Your task to perform on an android device: open a new tab in the chrome app Image 0: 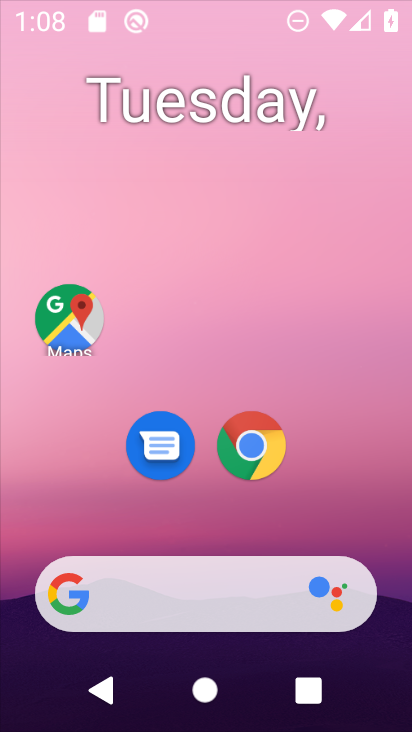
Step 0: click (298, 183)
Your task to perform on an android device: open a new tab in the chrome app Image 1: 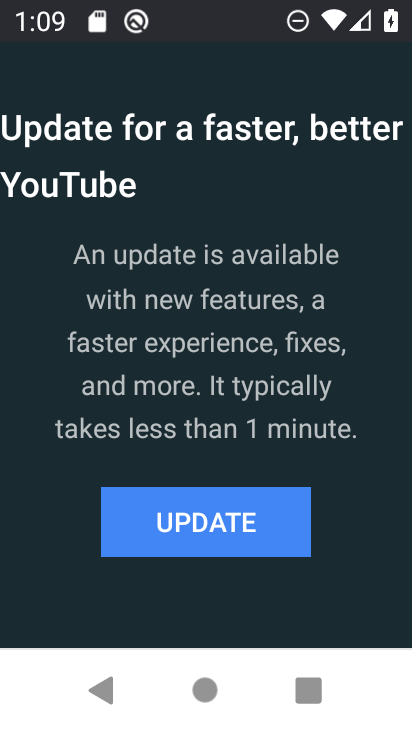
Step 1: click (245, 535)
Your task to perform on an android device: open a new tab in the chrome app Image 2: 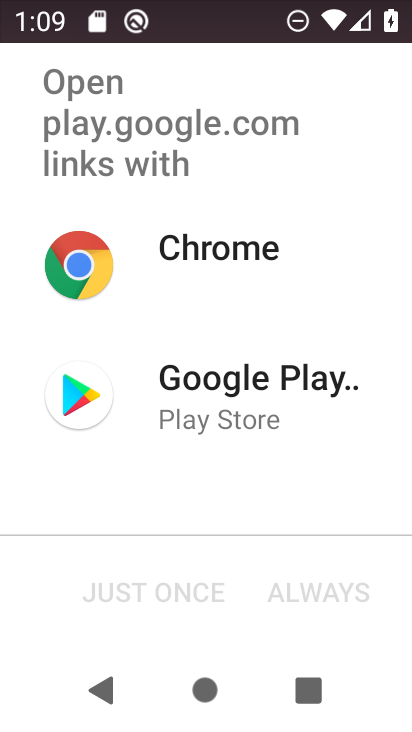
Step 2: click (195, 269)
Your task to perform on an android device: open a new tab in the chrome app Image 3: 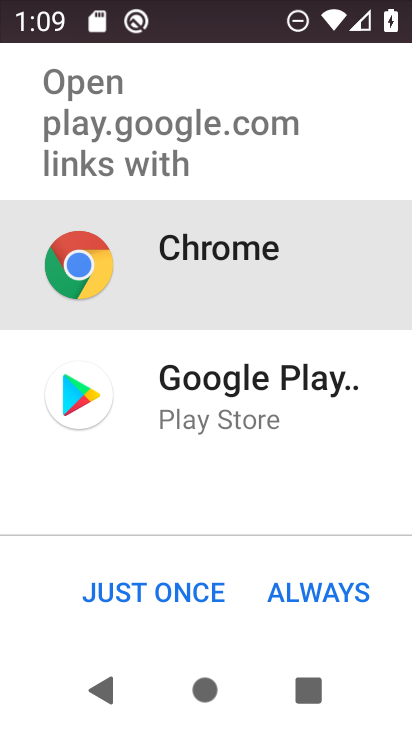
Step 3: click (184, 597)
Your task to perform on an android device: open a new tab in the chrome app Image 4: 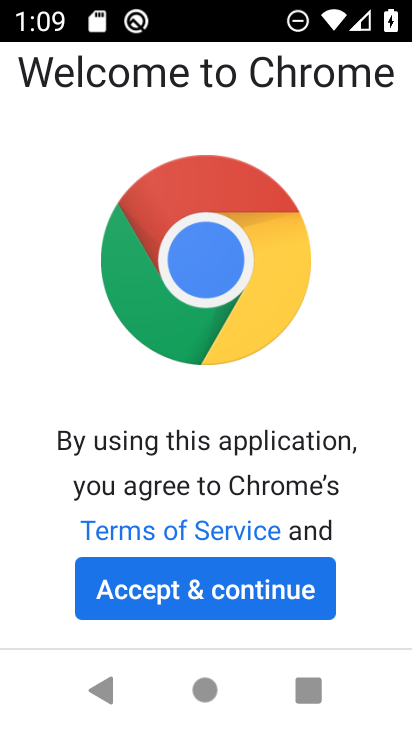
Step 4: click (291, 601)
Your task to perform on an android device: open a new tab in the chrome app Image 5: 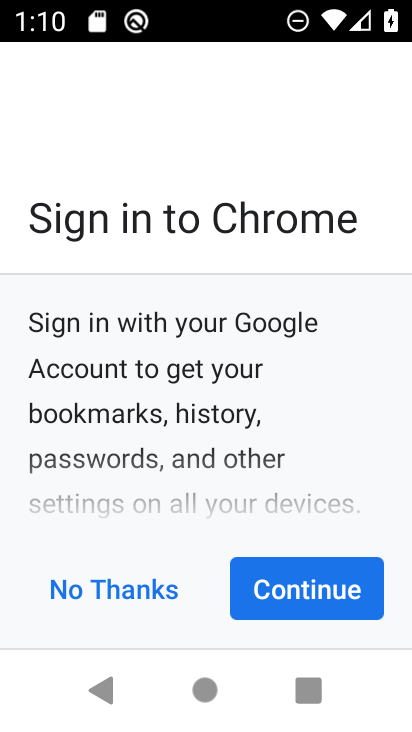
Step 5: click (293, 590)
Your task to perform on an android device: open a new tab in the chrome app Image 6: 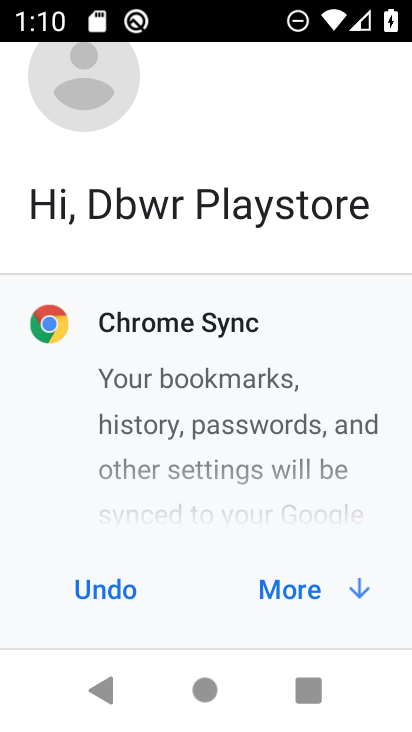
Step 6: click (291, 590)
Your task to perform on an android device: open a new tab in the chrome app Image 7: 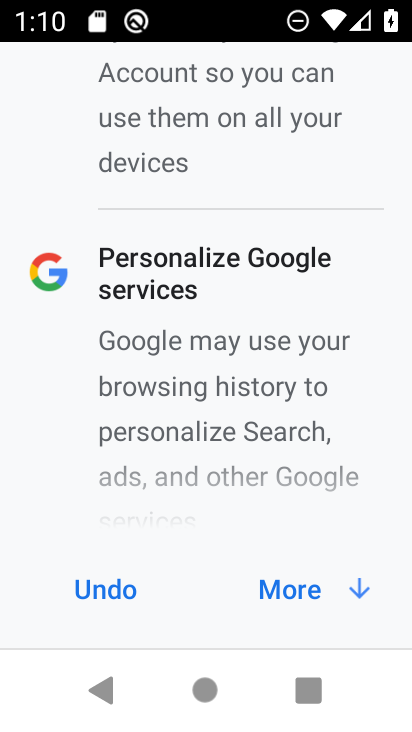
Step 7: click (290, 590)
Your task to perform on an android device: open a new tab in the chrome app Image 8: 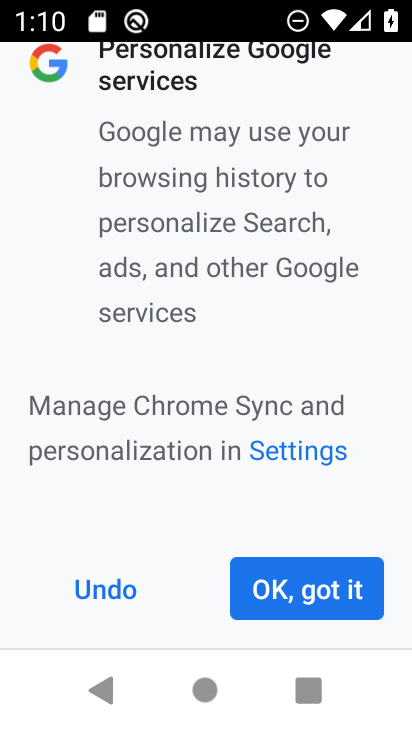
Step 8: click (290, 590)
Your task to perform on an android device: open a new tab in the chrome app Image 9: 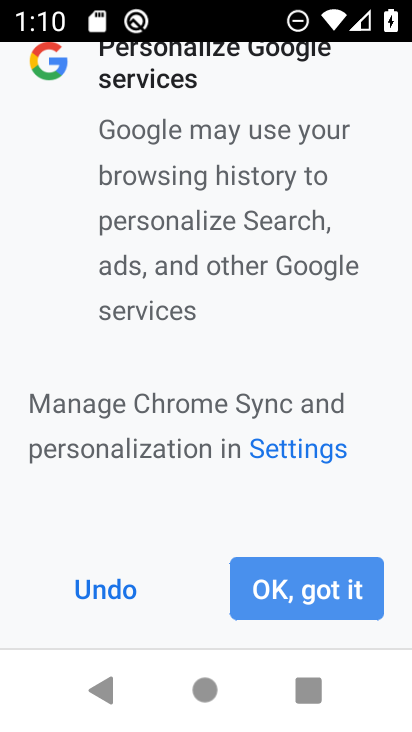
Step 9: click (290, 590)
Your task to perform on an android device: open a new tab in the chrome app Image 10: 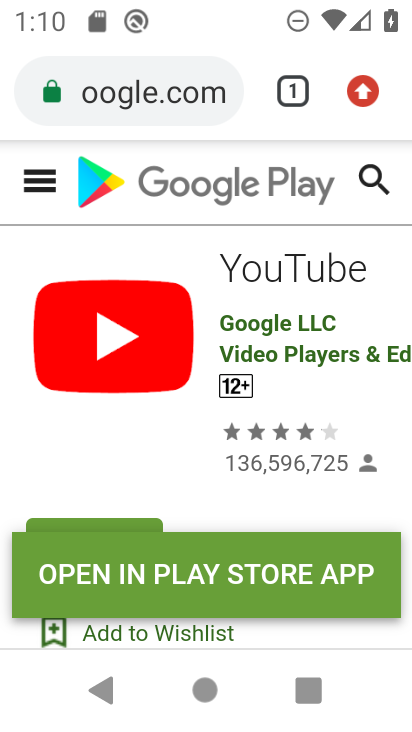
Step 10: click (301, 95)
Your task to perform on an android device: open a new tab in the chrome app Image 11: 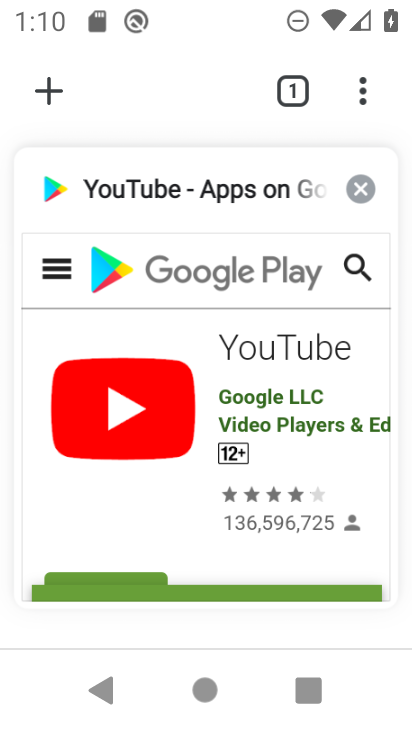
Step 11: click (59, 92)
Your task to perform on an android device: open a new tab in the chrome app Image 12: 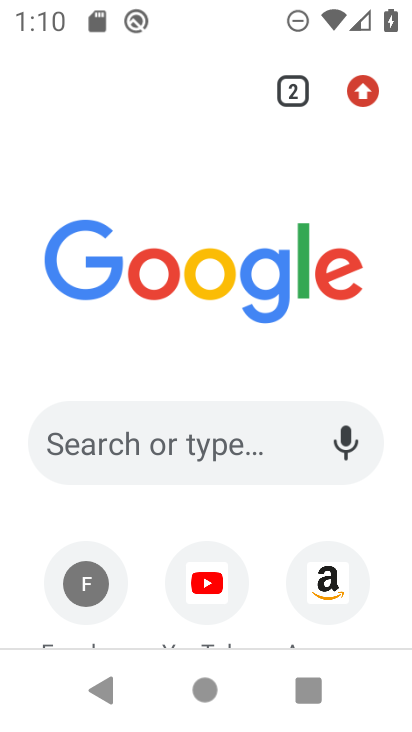
Step 12: task complete